Your task to perform on an android device: turn off notifications settings in the gmail app Image 0: 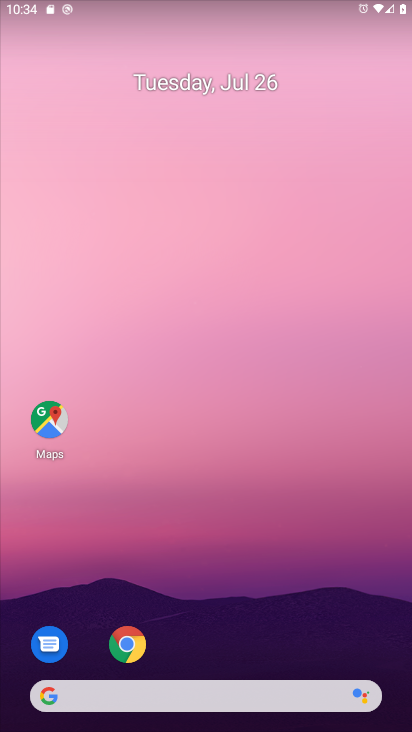
Step 0: drag from (241, 620) to (201, 111)
Your task to perform on an android device: turn off notifications settings in the gmail app Image 1: 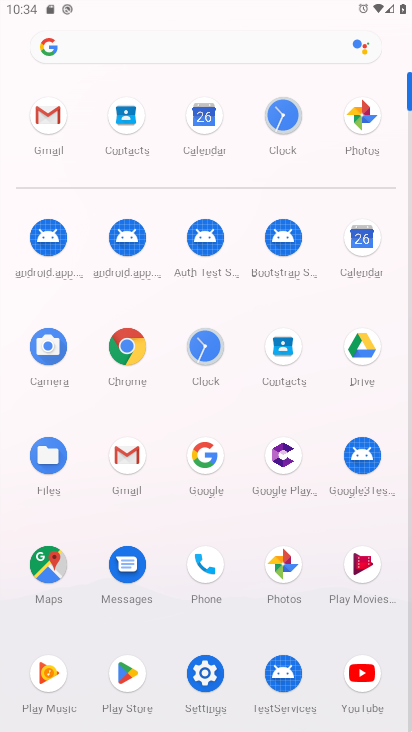
Step 1: click (128, 466)
Your task to perform on an android device: turn off notifications settings in the gmail app Image 2: 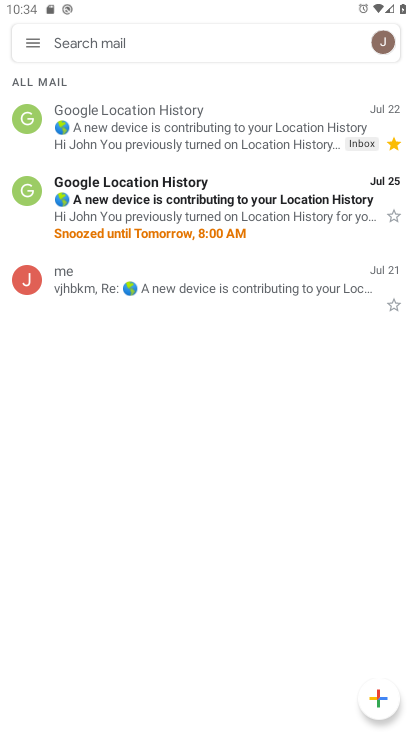
Step 2: click (26, 50)
Your task to perform on an android device: turn off notifications settings in the gmail app Image 3: 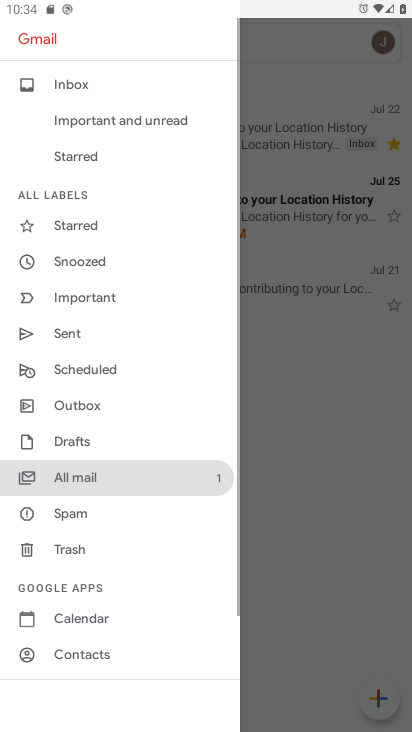
Step 3: drag from (85, 657) to (99, 340)
Your task to perform on an android device: turn off notifications settings in the gmail app Image 4: 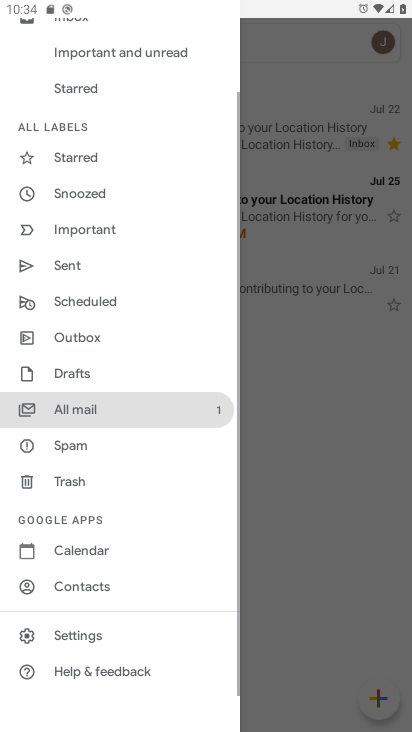
Step 4: click (83, 641)
Your task to perform on an android device: turn off notifications settings in the gmail app Image 5: 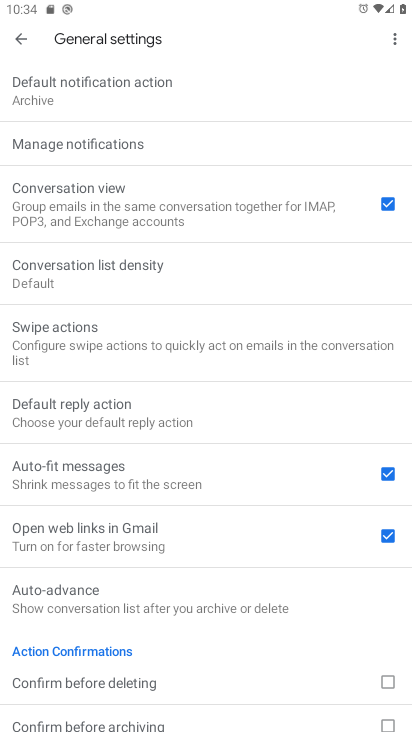
Step 5: click (76, 143)
Your task to perform on an android device: turn off notifications settings in the gmail app Image 6: 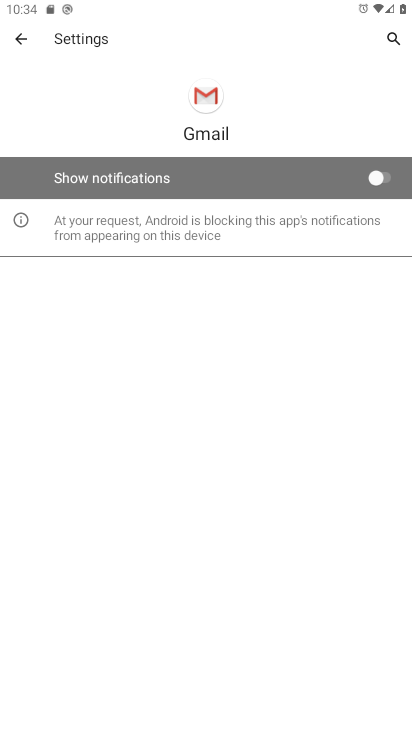
Step 6: task complete